Your task to perform on an android device: turn on data saver in the chrome app Image 0: 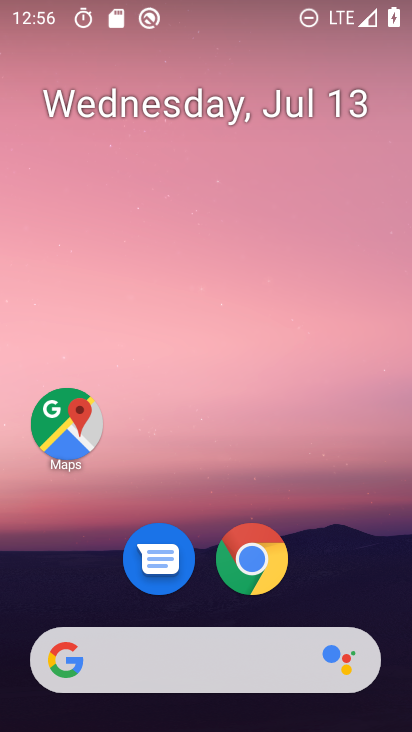
Step 0: drag from (249, 667) to (294, 266)
Your task to perform on an android device: turn on data saver in the chrome app Image 1: 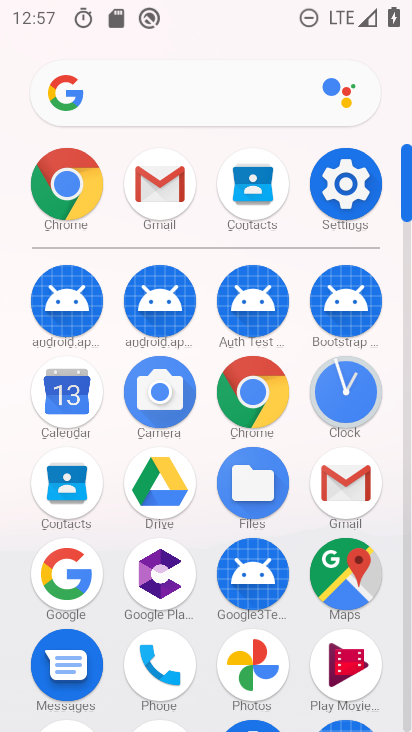
Step 1: click (263, 416)
Your task to perform on an android device: turn on data saver in the chrome app Image 2: 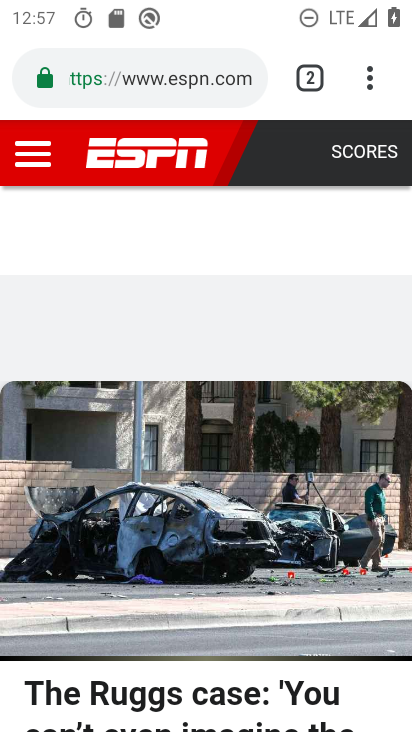
Step 2: click (374, 86)
Your task to perform on an android device: turn on data saver in the chrome app Image 3: 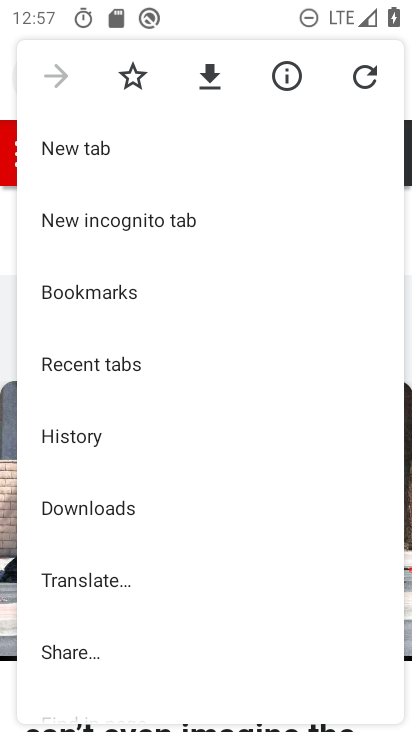
Step 3: drag from (106, 495) to (177, 217)
Your task to perform on an android device: turn on data saver in the chrome app Image 4: 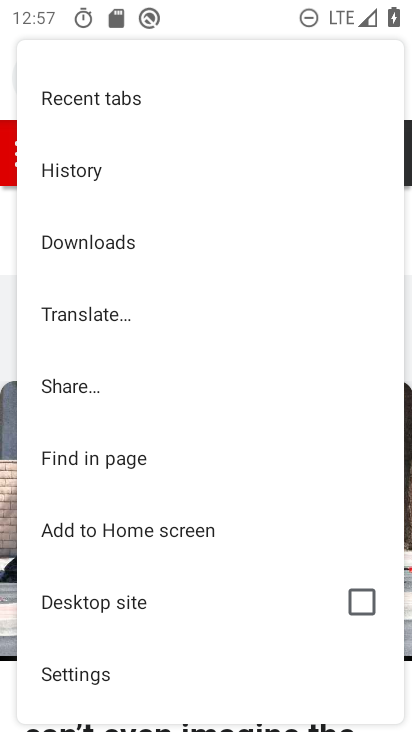
Step 4: click (102, 670)
Your task to perform on an android device: turn on data saver in the chrome app Image 5: 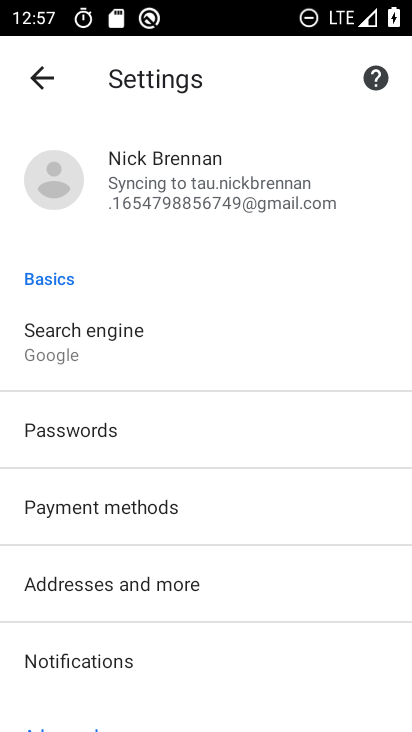
Step 5: drag from (78, 672) to (222, 354)
Your task to perform on an android device: turn on data saver in the chrome app Image 6: 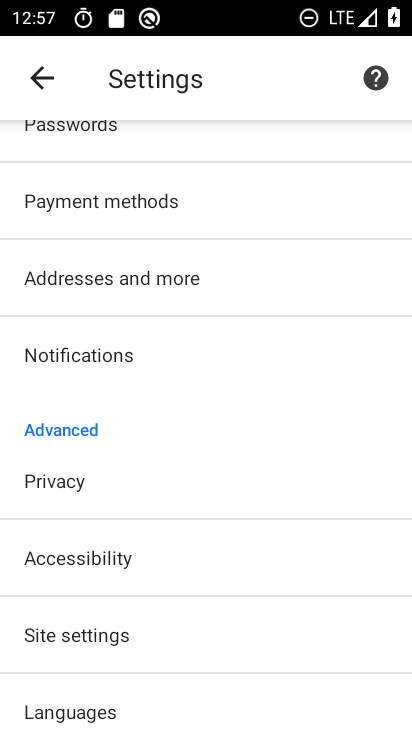
Step 6: drag from (94, 677) to (219, 327)
Your task to perform on an android device: turn on data saver in the chrome app Image 7: 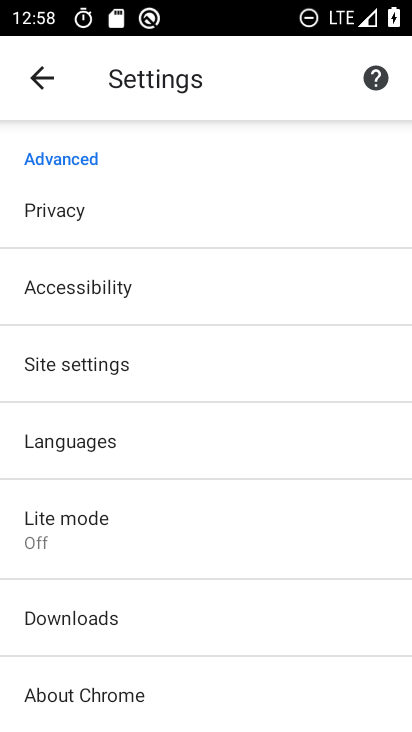
Step 7: click (89, 528)
Your task to perform on an android device: turn on data saver in the chrome app Image 8: 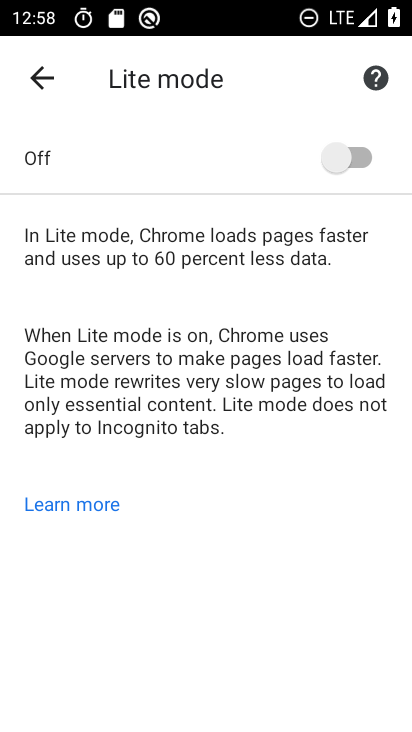
Step 8: click (370, 150)
Your task to perform on an android device: turn on data saver in the chrome app Image 9: 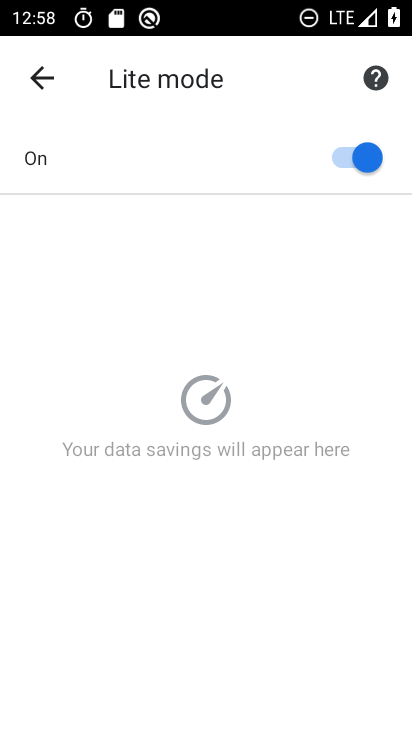
Step 9: task complete